Your task to perform on an android device: add a contact in the contacts app Image 0: 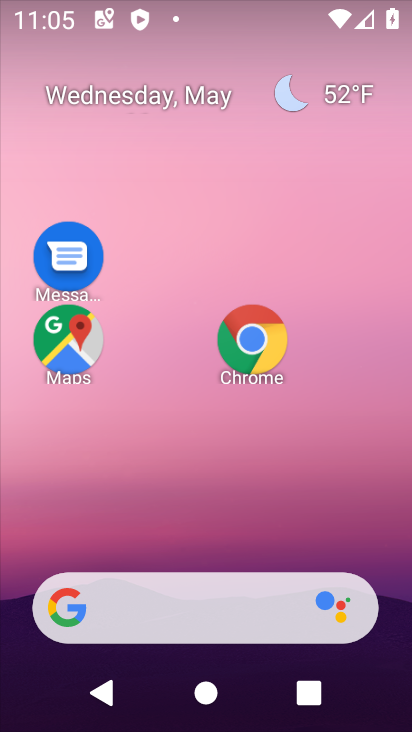
Step 0: drag from (189, 527) to (173, 81)
Your task to perform on an android device: add a contact in the contacts app Image 1: 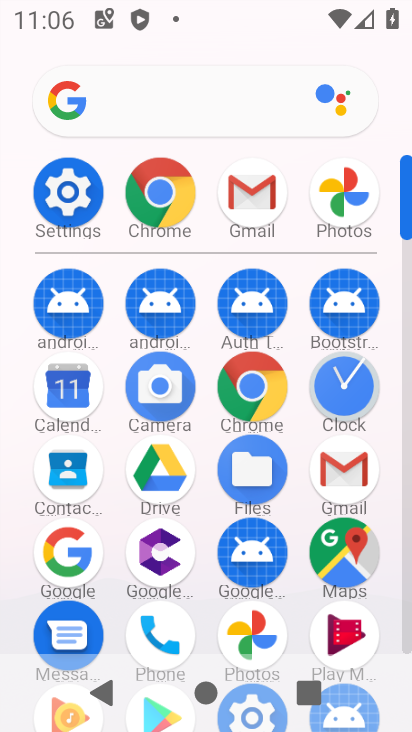
Step 1: click (72, 470)
Your task to perform on an android device: add a contact in the contacts app Image 2: 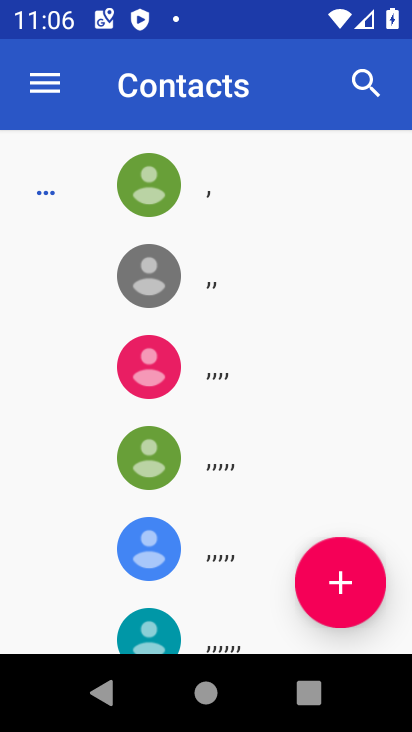
Step 2: click (337, 585)
Your task to perform on an android device: add a contact in the contacts app Image 3: 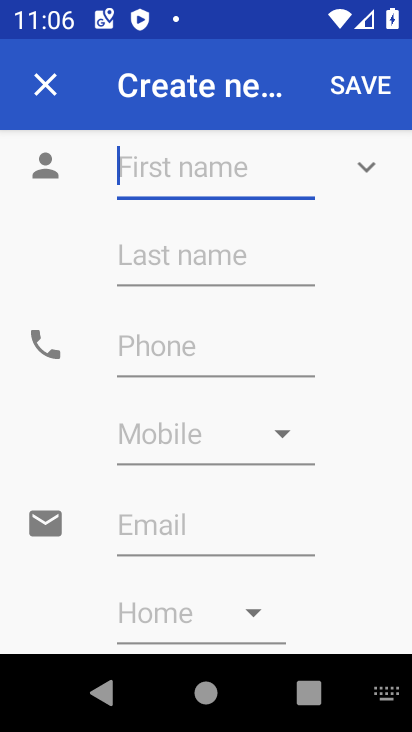
Step 3: type ""
Your task to perform on an android device: add a contact in the contacts app Image 4: 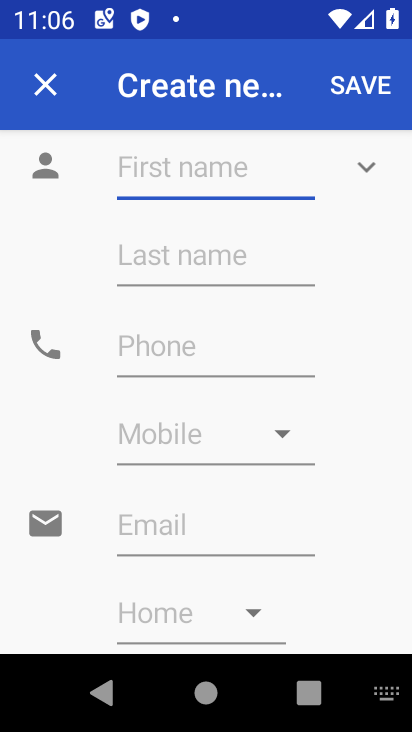
Step 4: type "hjx"
Your task to perform on an android device: add a contact in the contacts app Image 5: 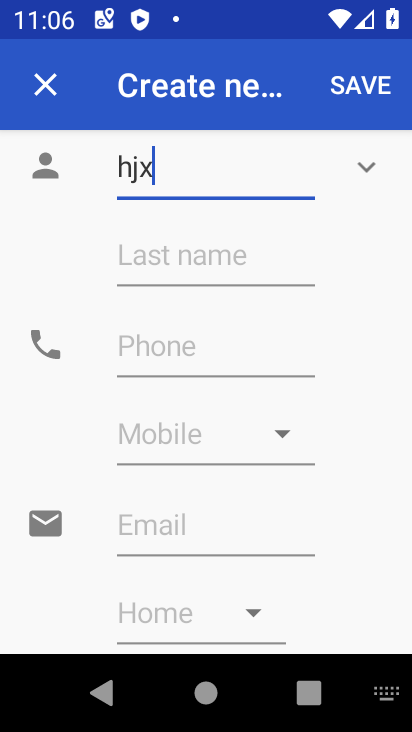
Step 5: click (358, 93)
Your task to perform on an android device: add a contact in the contacts app Image 6: 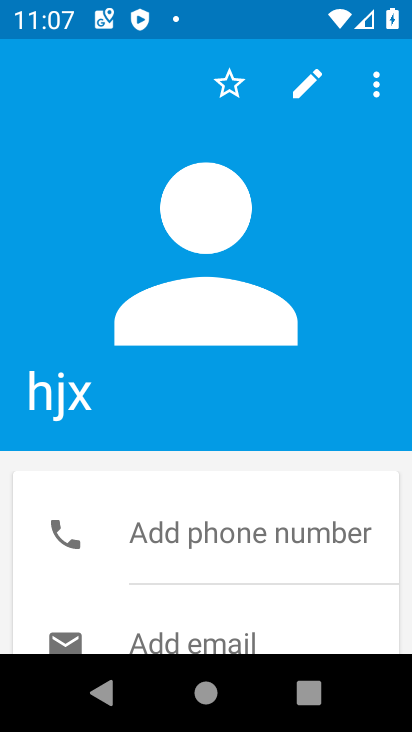
Step 6: task complete